Your task to perform on an android device: Open wifi settings Image 0: 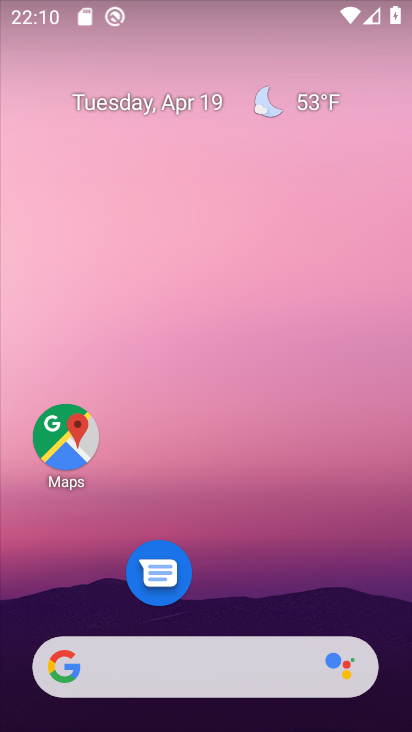
Step 0: drag from (234, 599) to (232, 82)
Your task to perform on an android device: Open wifi settings Image 1: 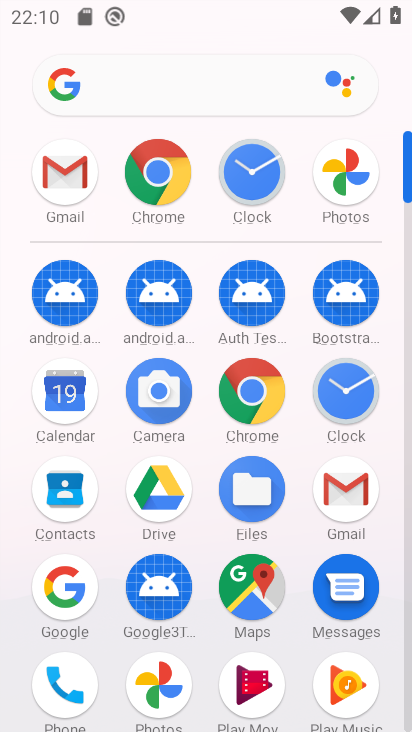
Step 1: drag from (206, 449) to (234, 43)
Your task to perform on an android device: Open wifi settings Image 2: 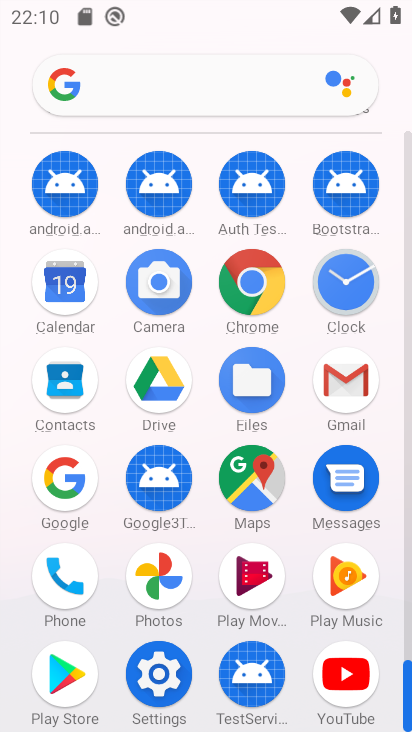
Step 2: click (157, 672)
Your task to perform on an android device: Open wifi settings Image 3: 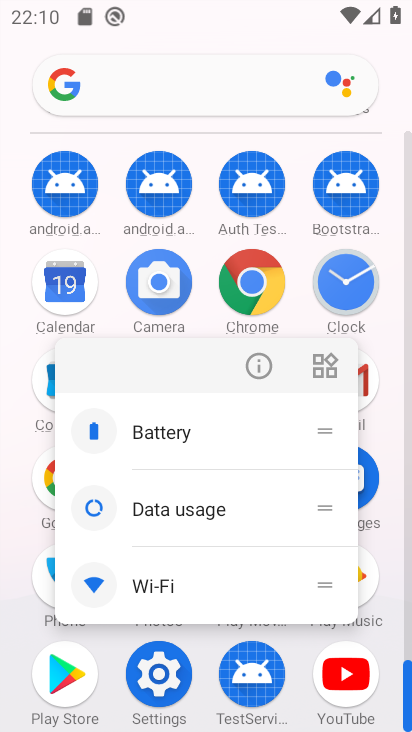
Step 3: click (156, 667)
Your task to perform on an android device: Open wifi settings Image 4: 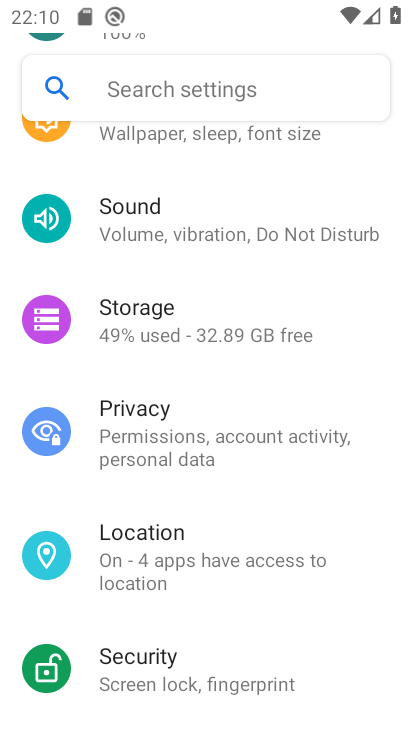
Step 4: drag from (209, 169) to (194, 719)
Your task to perform on an android device: Open wifi settings Image 5: 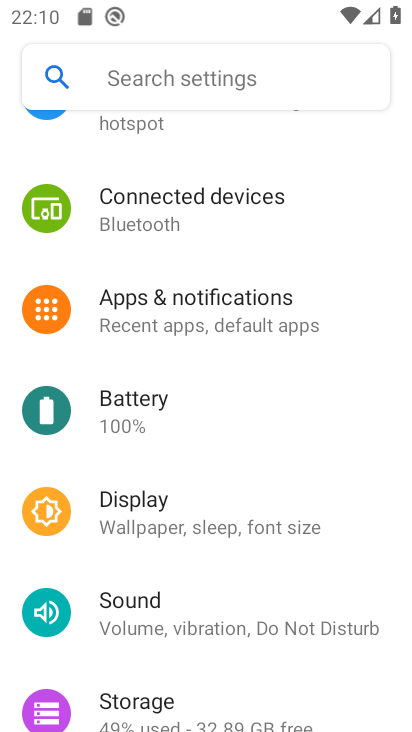
Step 5: drag from (177, 163) to (225, 504)
Your task to perform on an android device: Open wifi settings Image 6: 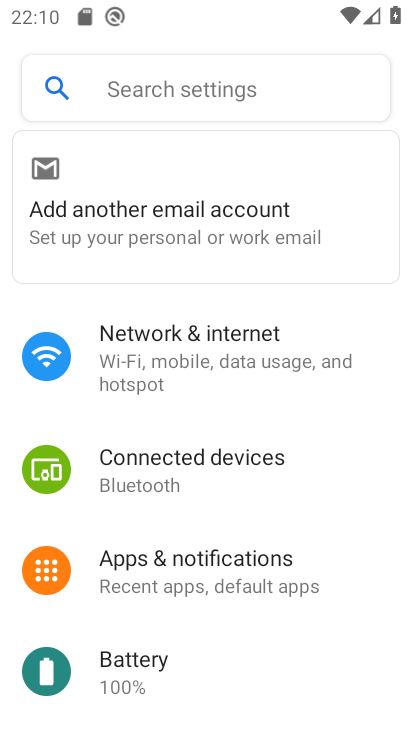
Step 6: click (193, 375)
Your task to perform on an android device: Open wifi settings Image 7: 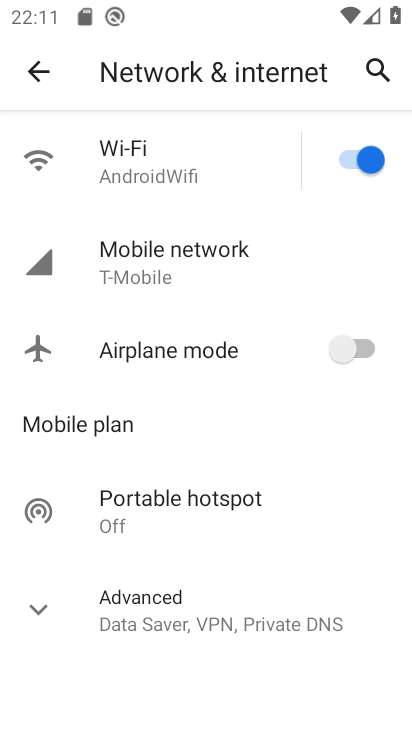
Step 7: click (197, 155)
Your task to perform on an android device: Open wifi settings Image 8: 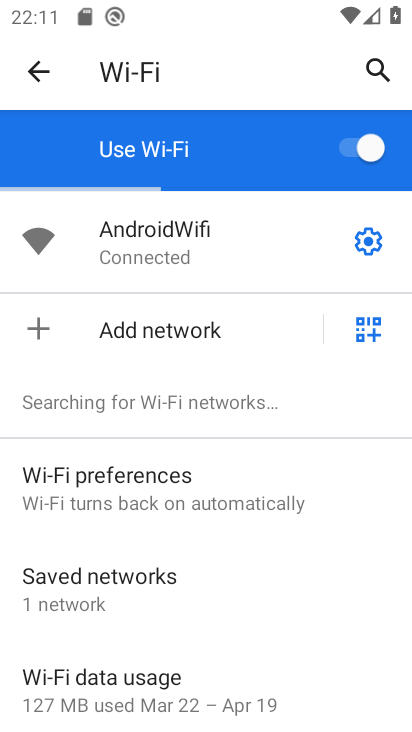
Step 8: task complete